Your task to perform on an android device: delete browsing data in the chrome app Image 0: 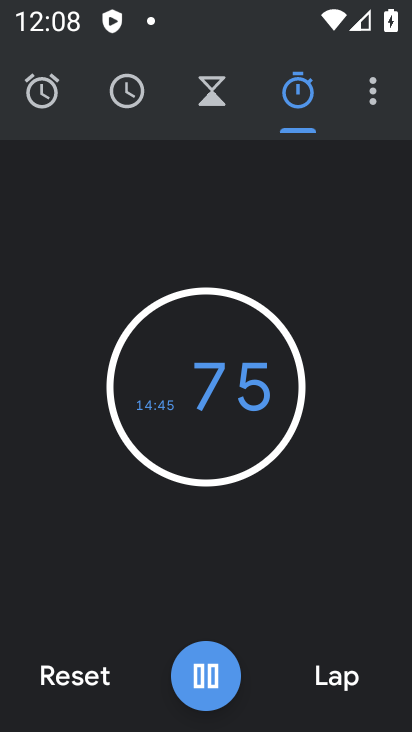
Step 0: click (36, 687)
Your task to perform on an android device: delete browsing data in the chrome app Image 1: 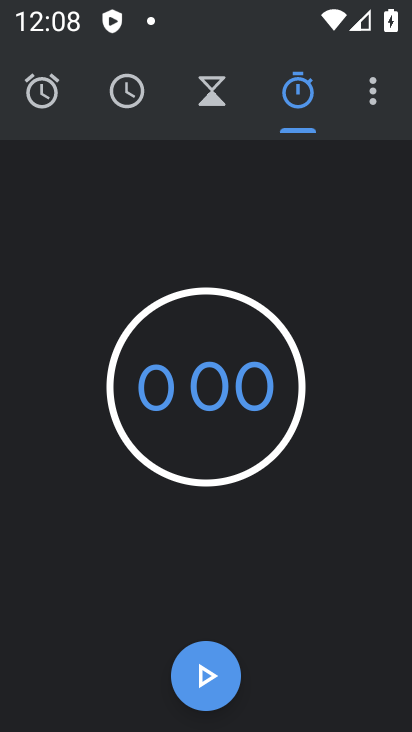
Step 1: press home button
Your task to perform on an android device: delete browsing data in the chrome app Image 2: 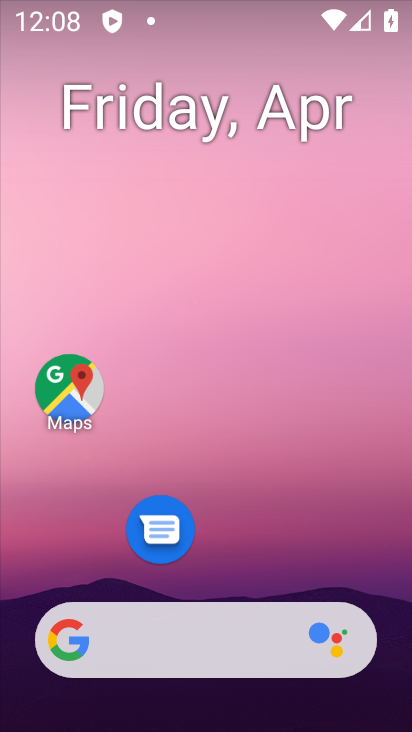
Step 2: drag from (223, 577) to (307, 14)
Your task to perform on an android device: delete browsing data in the chrome app Image 3: 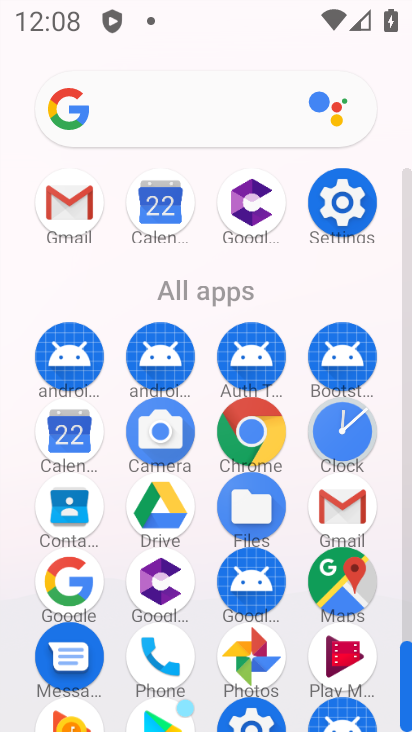
Step 3: click (257, 424)
Your task to perform on an android device: delete browsing data in the chrome app Image 4: 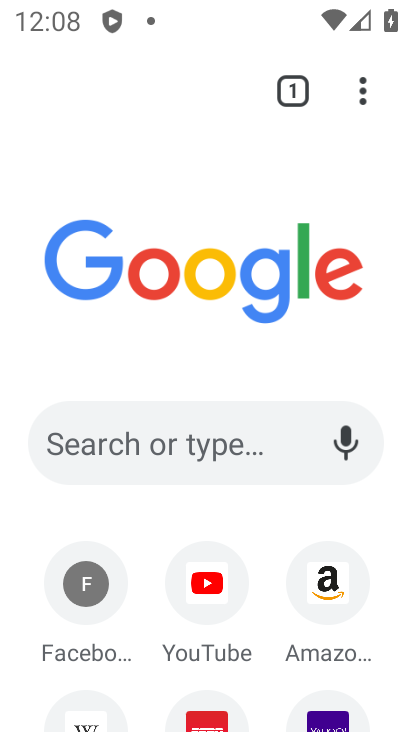
Step 4: click (350, 93)
Your task to perform on an android device: delete browsing data in the chrome app Image 5: 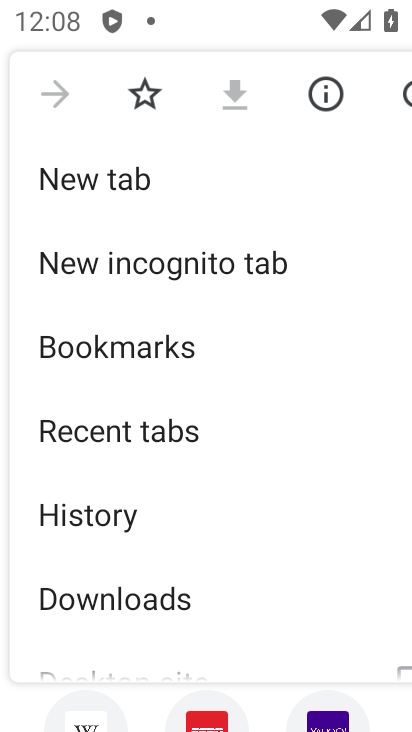
Step 5: click (100, 496)
Your task to perform on an android device: delete browsing data in the chrome app Image 6: 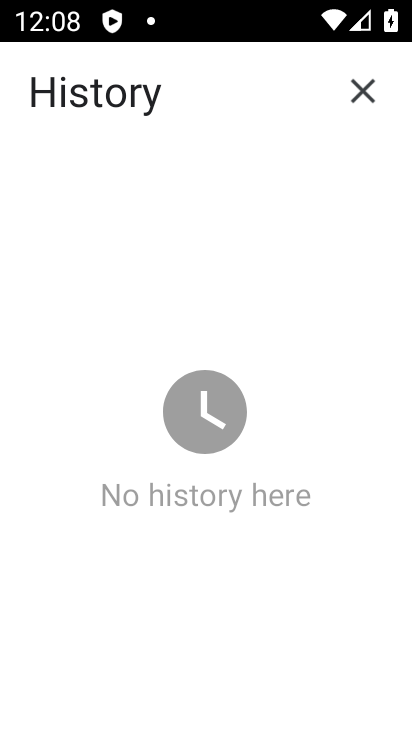
Step 6: task complete